Your task to perform on an android device: toggle airplane mode Image 0: 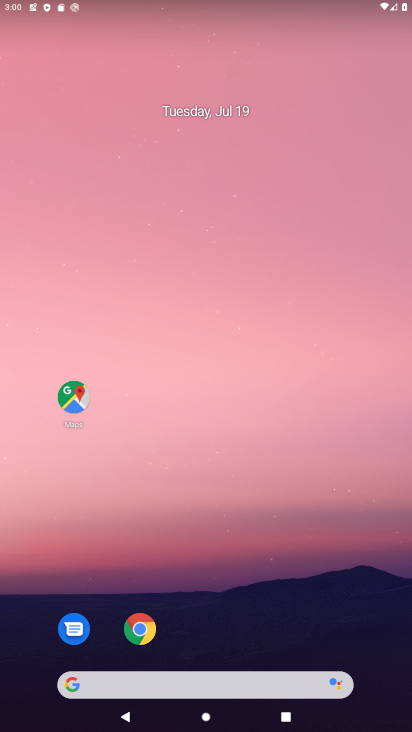
Step 0: drag from (214, 687) to (164, 194)
Your task to perform on an android device: toggle airplane mode Image 1: 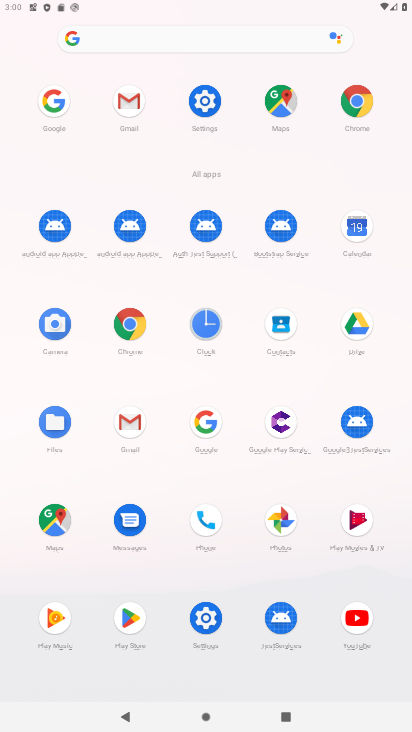
Step 1: click (209, 103)
Your task to perform on an android device: toggle airplane mode Image 2: 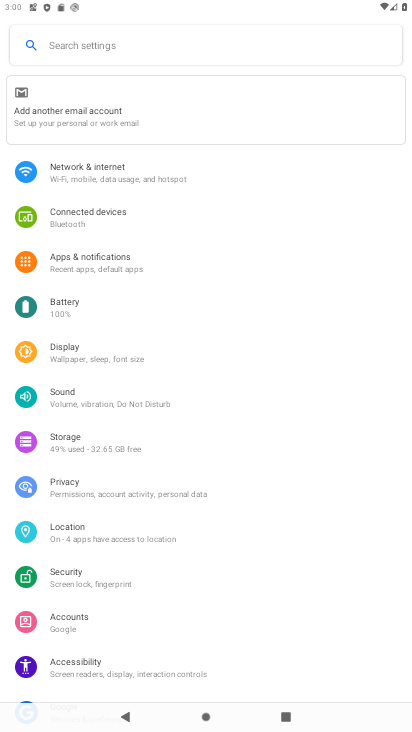
Step 2: click (124, 167)
Your task to perform on an android device: toggle airplane mode Image 3: 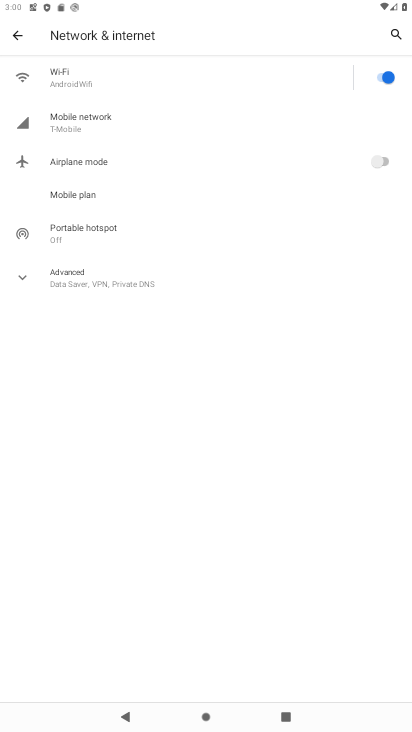
Step 3: click (373, 163)
Your task to perform on an android device: toggle airplane mode Image 4: 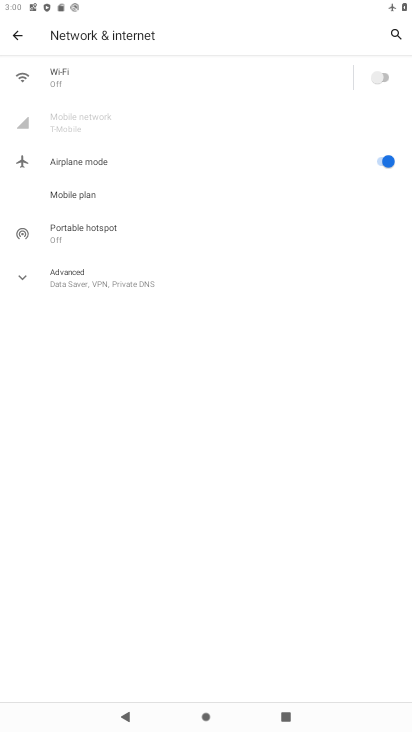
Step 4: task complete